Your task to perform on an android device: Open calendar and show me the fourth week of next month Image 0: 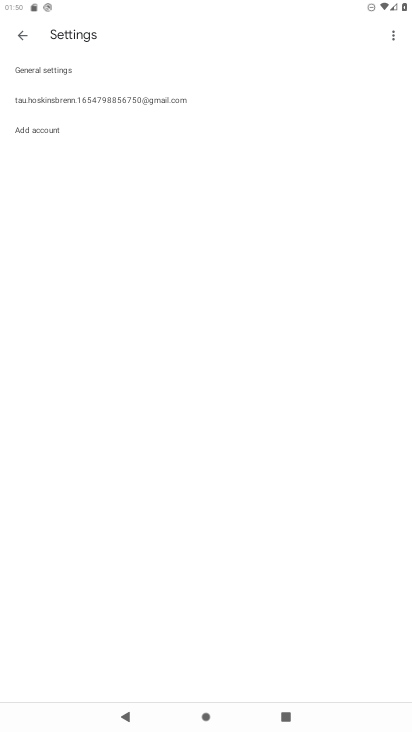
Step 0: press home button
Your task to perform on an android device: Open calendar and show me the fourth week of next month Image 1: 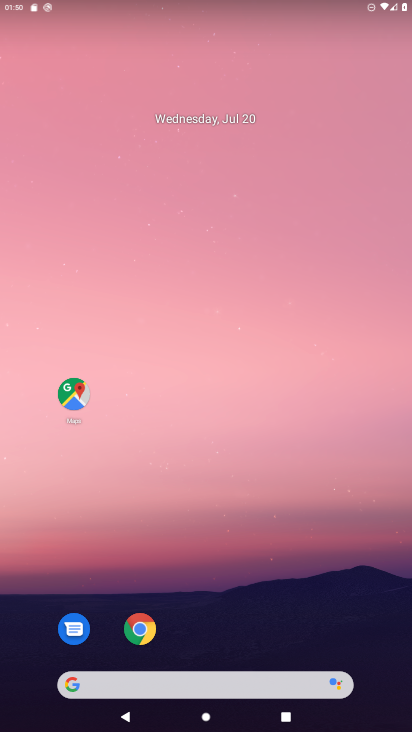
Step 1: drag from (201, 596) to (214, 32)
Your task to perform on an android device: Open calendar and show me the fourth week of next month Image 2: 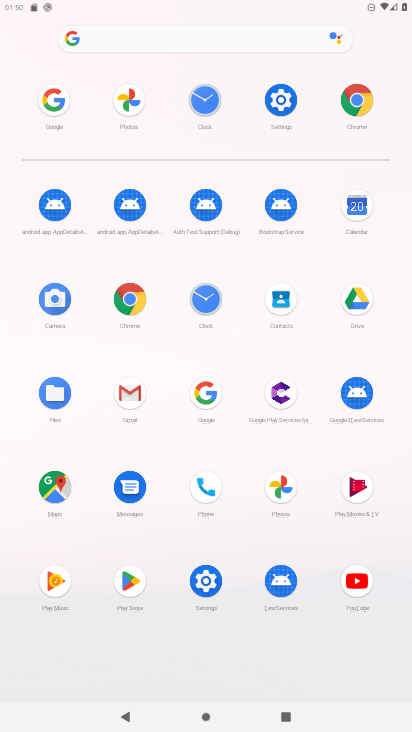
Step 2: click (348, 220)
Your task to perform on an android device: Open calendar and show me the fourth week of next month Image 3: 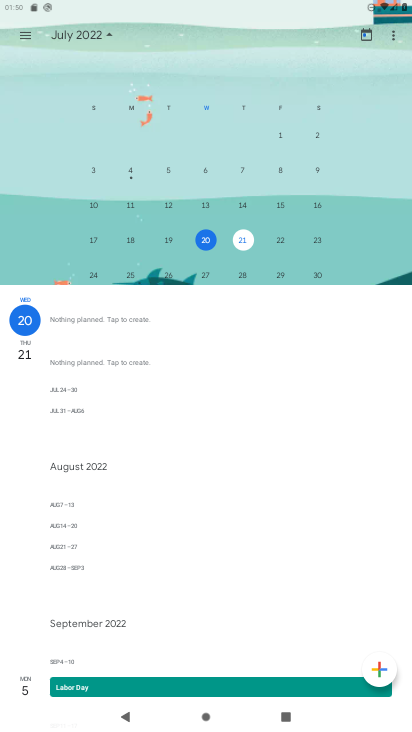
Step 3: click (78, 38)
Your task to perform on an android device: Open calendar and show me the fourth week of next month Image 4: 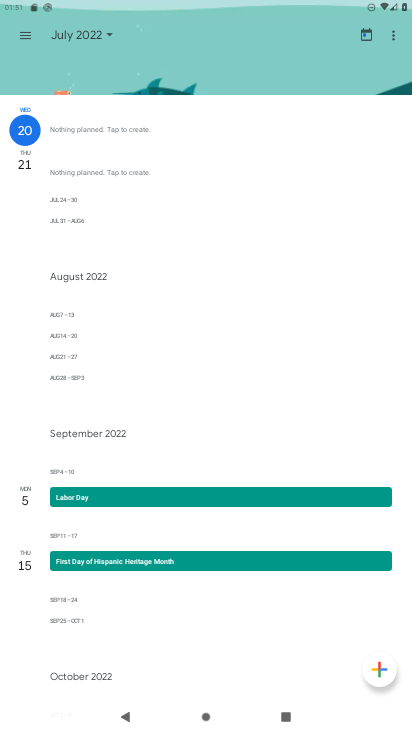
Step 4: click (78, 38)
Your task to perform on an android device: Open calendar and show me the fourth week of next month Image 5: 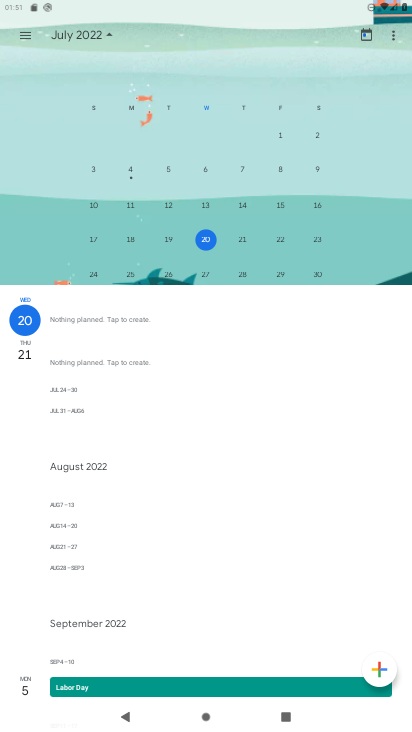
Step 5: drag from (325, 153) to (12, 132)
Your task to perform on an android device: Open calendar and show me the fourth week of next month Image 6: 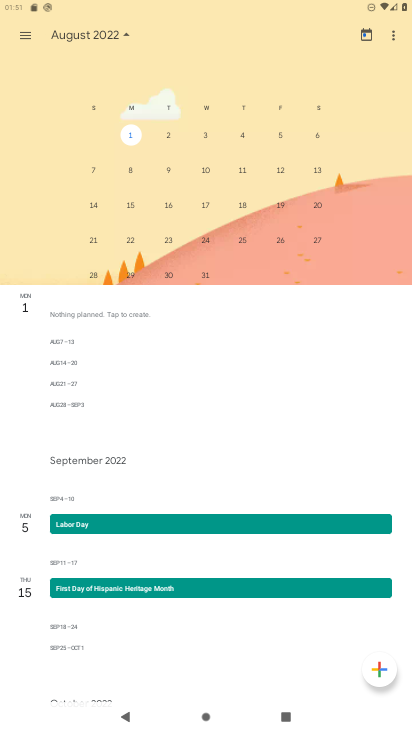
Step 6: click (22, 34)
Your task to perform on an android device: Open calendar and show me the fourth week of next month Image 7: 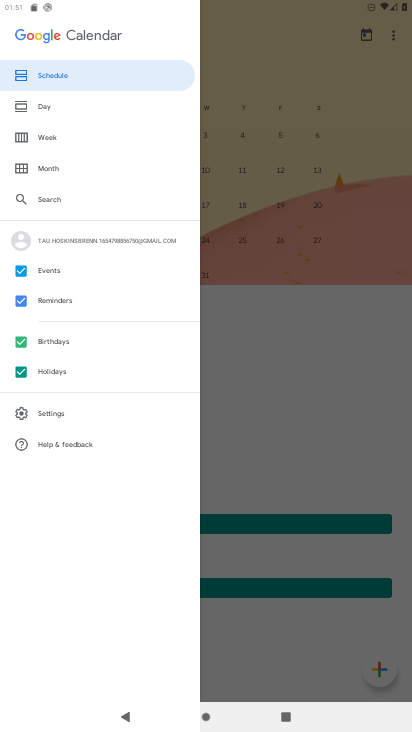
Step 7: click (41, 137)
Your task to perform on an android device: Open calendar and show me the fourth week of next month Image 8: 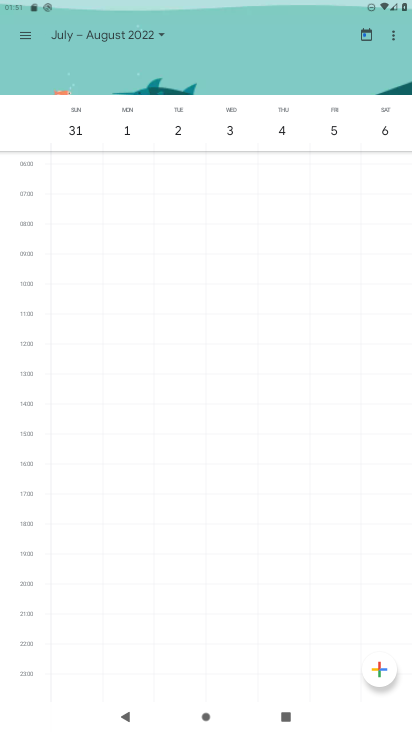
Step 8: click (47, 138)
Your task to perform on an android device: Open calendar and show me the fourth week of next month Image 9: 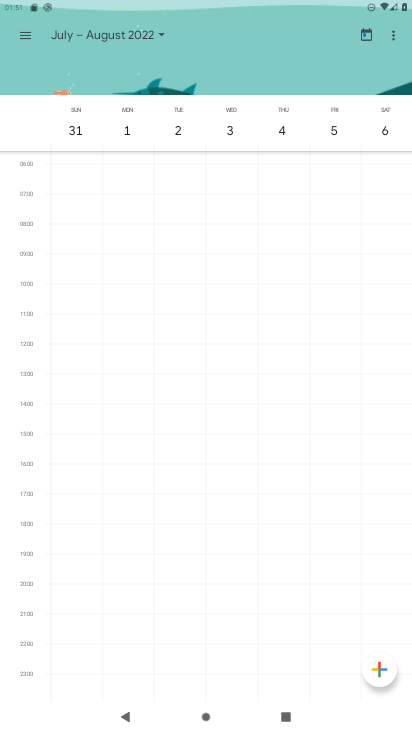
Step 9: click (149, 41)
Your task to perform on an android device: Open calendar and show me the fourth week of next month Image 10: 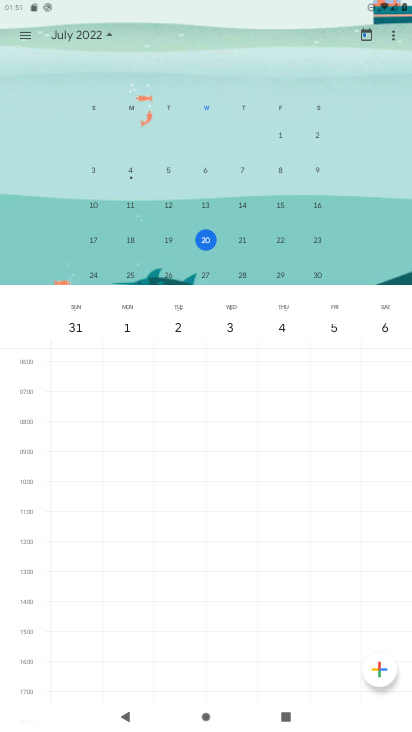
Step 10: drag from (307, 134) to (73, 145)
Your task to perform on an android device: Open calendar and show me the fourth week of next month Image 11: 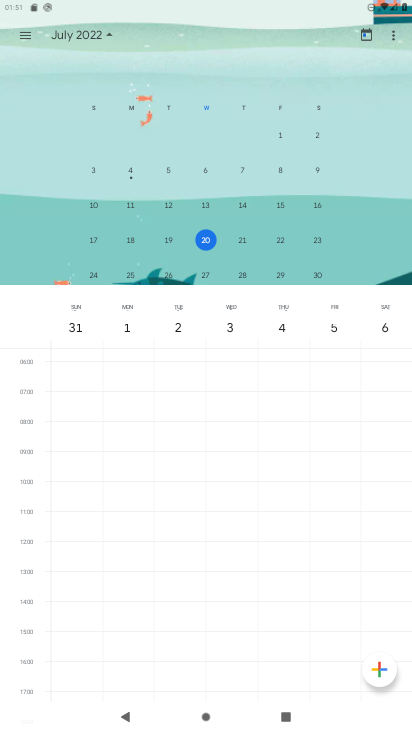
Step 11: drag from (250, 159) to (17, 195)
Your task to perform on an android device: Open calendar and show me the fourth week of next month Image 12: 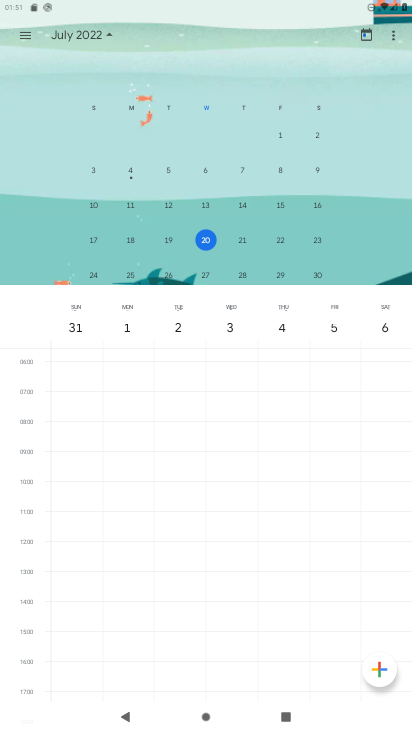
Step 12: drag from (339, 162) to (33, 164)
Your task to perform on an android device: Open calendar and show me the fourth week of next month Image 13: 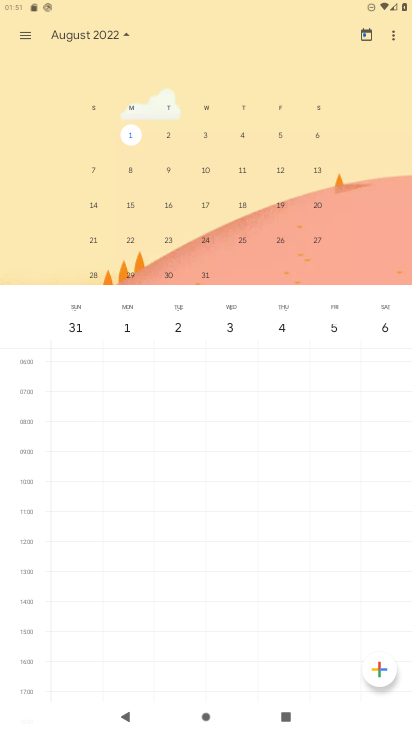
Step 13: click (91, 245)
Your task to perform on an android device: Open calendar and show me the fourth week of next month Image 14: 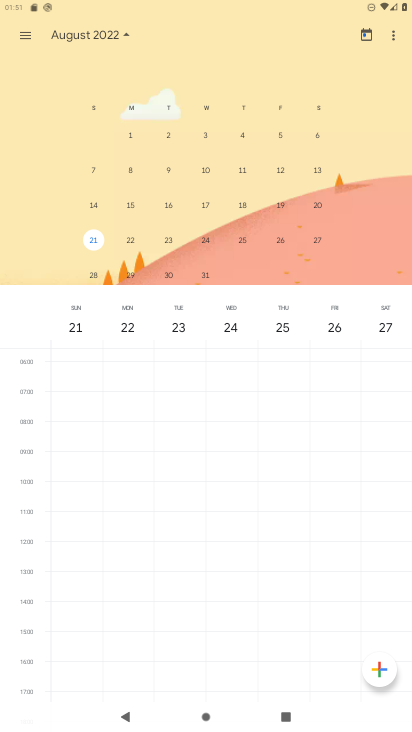
Step 14: task complete